Your task to perform on an android device: snooze an email in the gmail app Image 0: 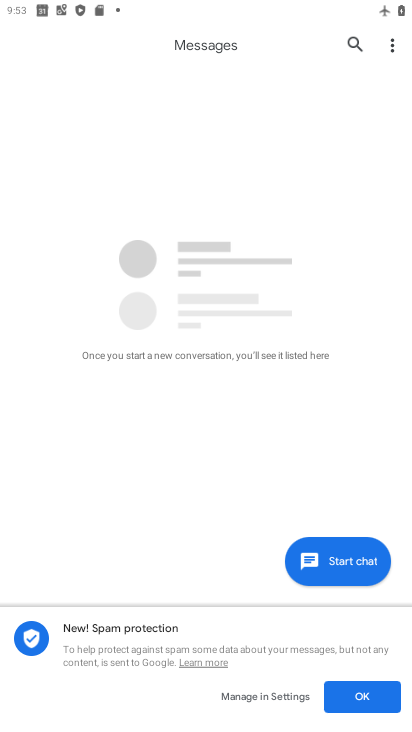
Step 0: press home button
Your task to perform on an android device: snooze an email in the gmail app Image 1: 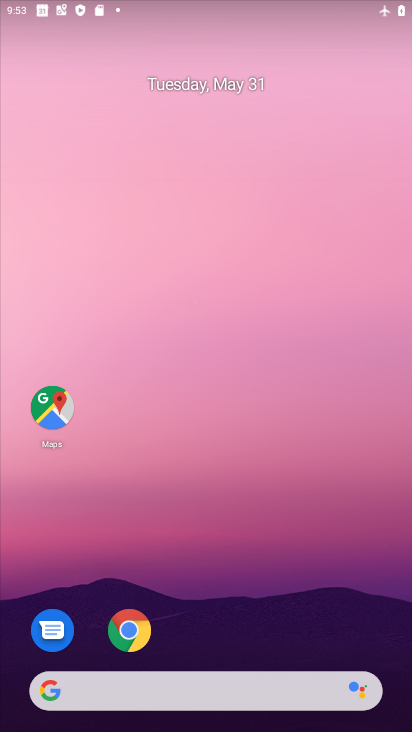
Step 1: drag from (218, 646) to (219, 258)
Your task to perform on an android device: snooze an email in the gmail app Image 2: 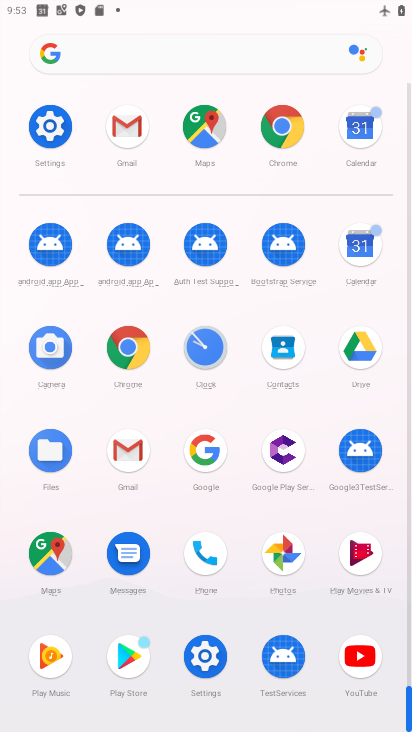
Step 2: click (194, 657)
Your task to perform on an android device: snooze an email in the gmail app Image 3: 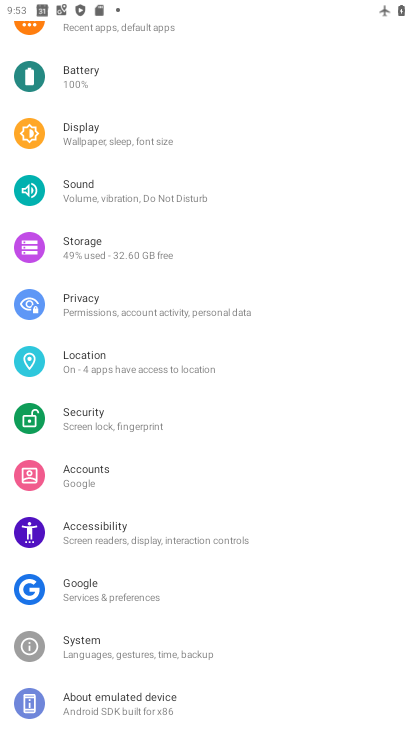
Step 3: press home button
Your task to perform on an android device: snooze an email in the gmail app Image 4: 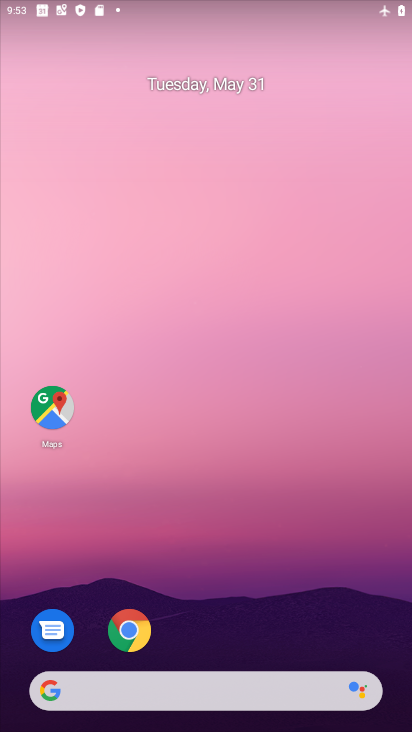
Step 4: drag from (221, 463) to (240, 233)
Your task to perform on an android device: snooze an email in the gmail app Image 5: 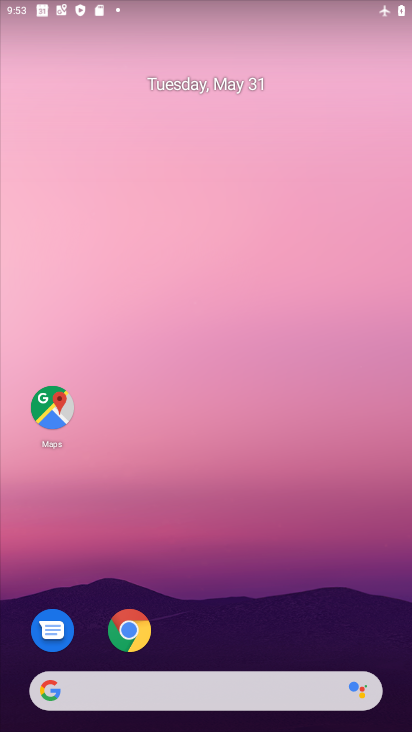
Step 5: drag from (235, 521) to (269, 267)
Your task to perform on an android device: snooze an email in the gmail app Image 6: 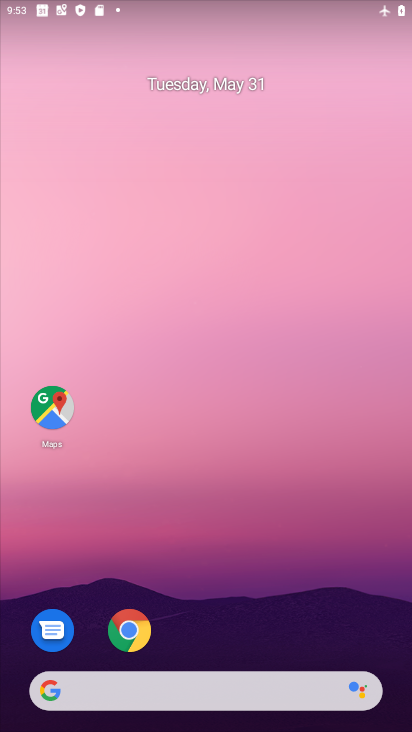
Step 6: drag from (229, 657) to (234, 185)
Your task to perform on an android device: snooze an email in the gmail app Image 7: 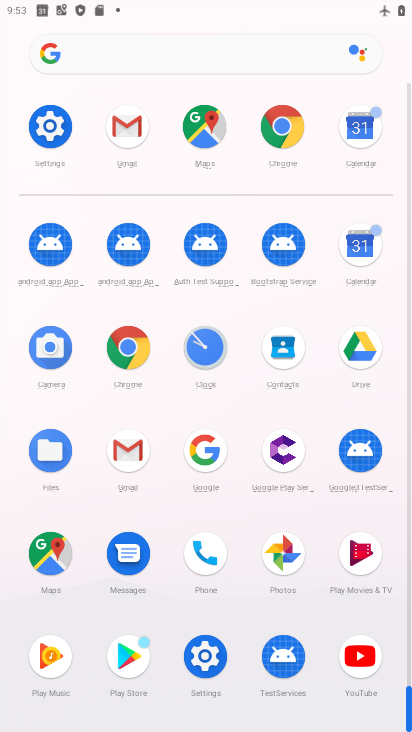
Step 7: click (125, 454)
Your task to perform on an android device: snooze an email in the gmail app Image 8: 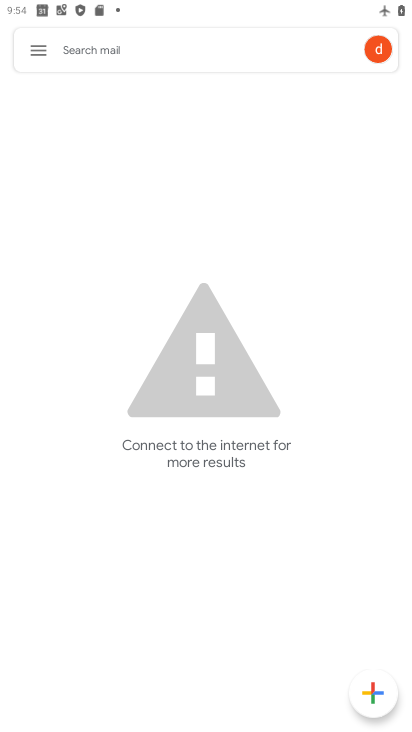
Step 8: click (36, 44)
Your task to perform on an android device: snooze an email in the gmail app Image 9: 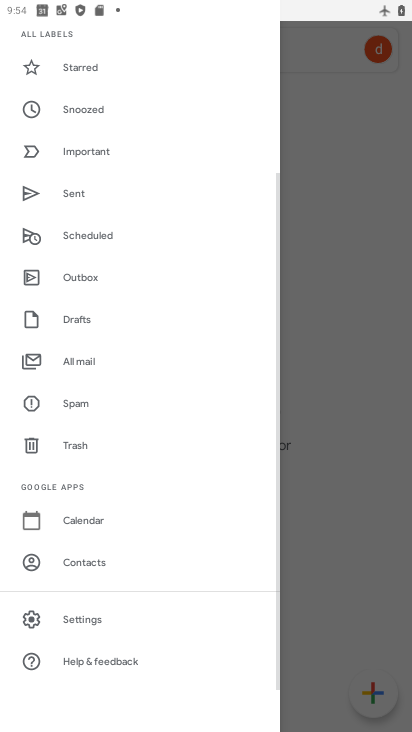
Step 9: click (96, 112)
Your task to perform on an android device: snooze an email in the gmail app Image 10: 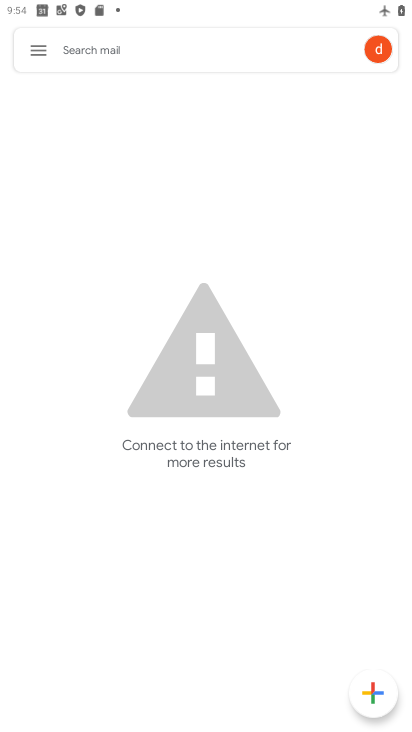
Step 10: task complete